Your task to perform on an android device: turn on location history Image 0: 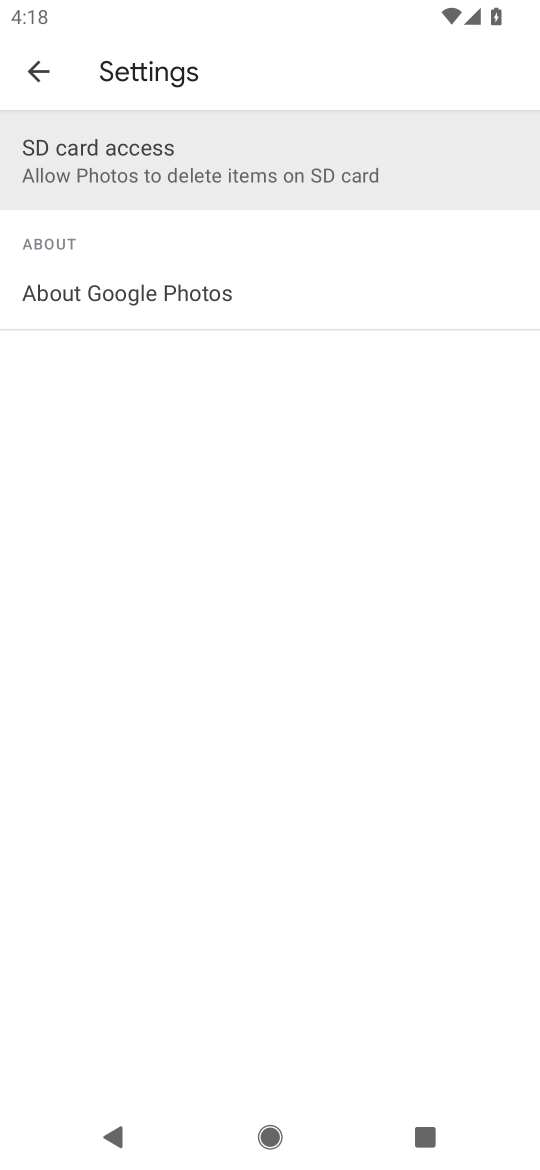
Step 0: press home button
Your task to perform on an android device: turn on location history Image 1: 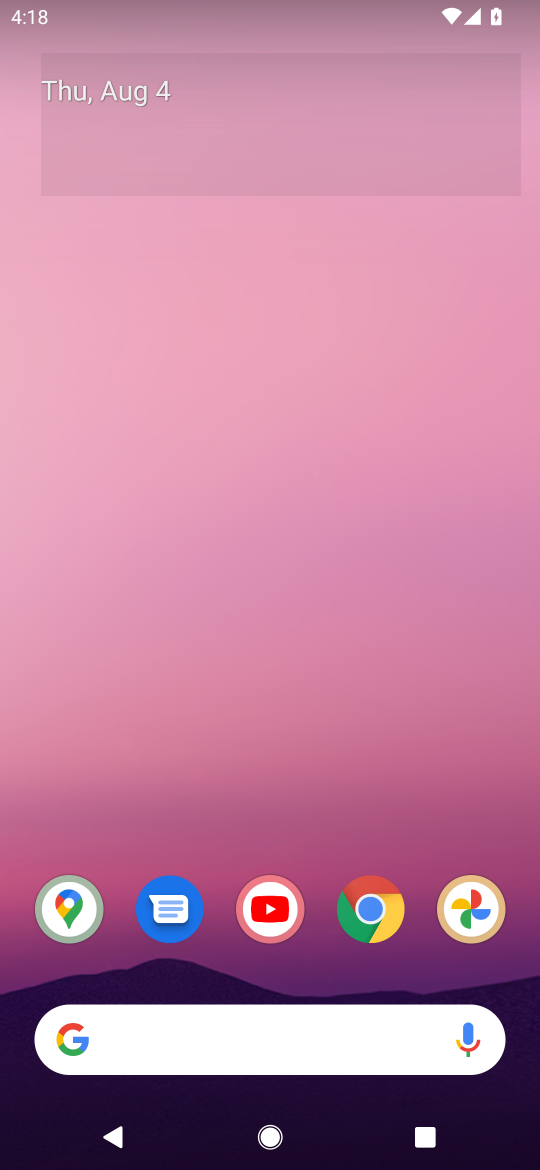
Step 1: drag from (348, 514) to (412, 23)
Your task to perform on an android device: turn on location history Image 2: 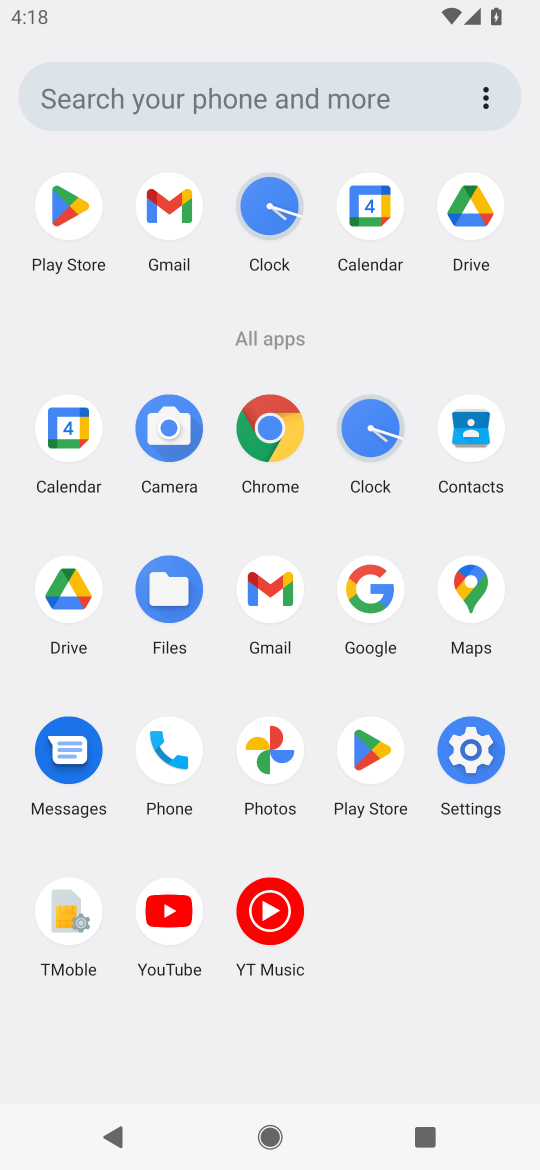
Step 2: click (463, 763)
Your task to perform on an android device: turn on location history Image 3: 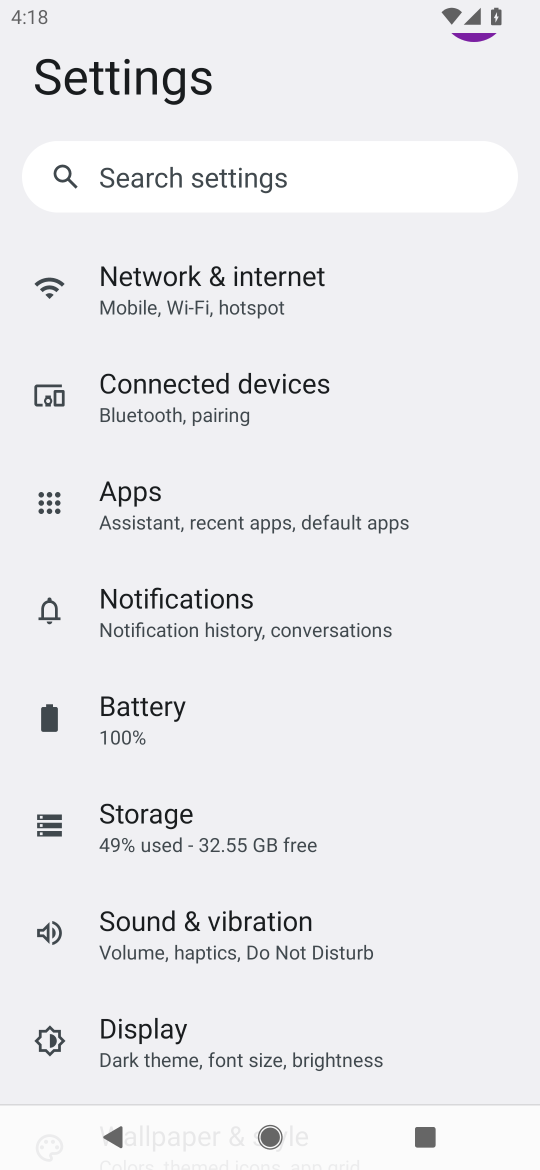
Step 3: drag from (232, 993) to (207, 313)
Your task to perform on an android device: turn on location history Image 4: 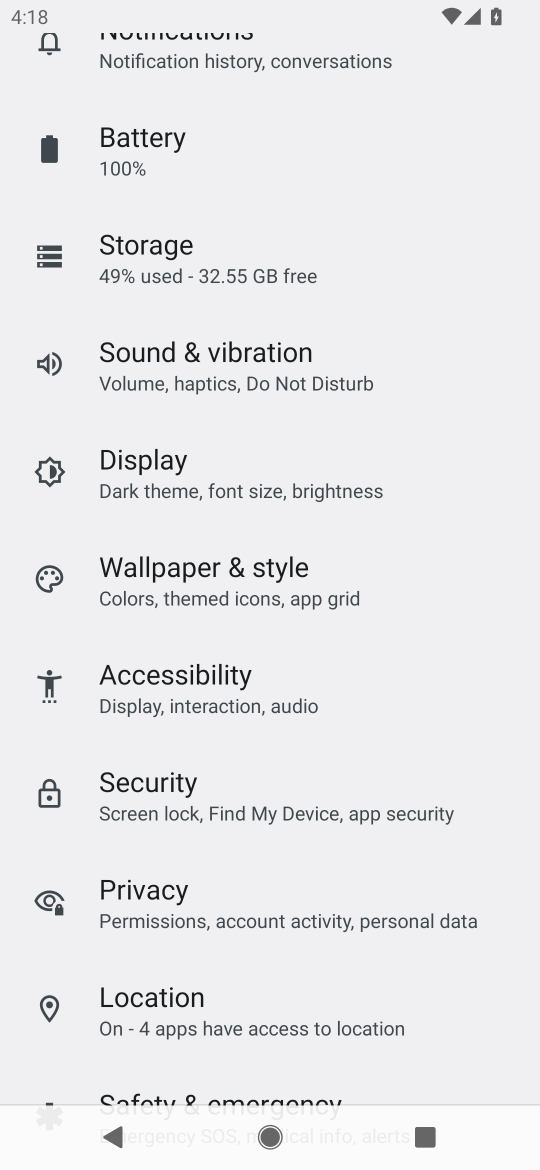
Step 4: click (251, 1024)
Your task to perform on an android device: turn on location history Image 5: 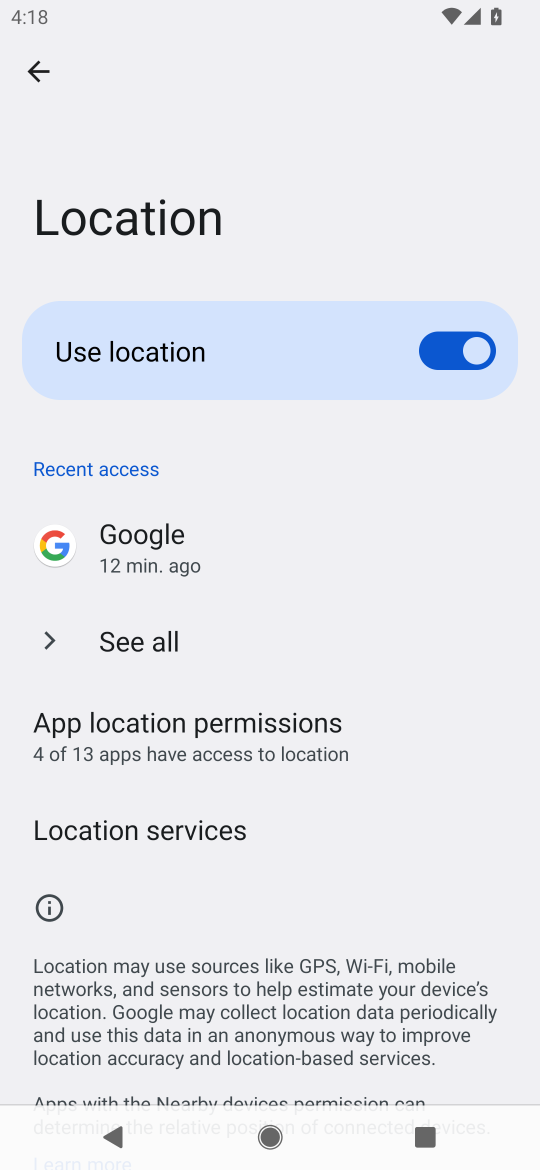
Step 5: drag from (405, 1012) to (374, 285)
Your task to perform on an android device: turn on location history Image 6: 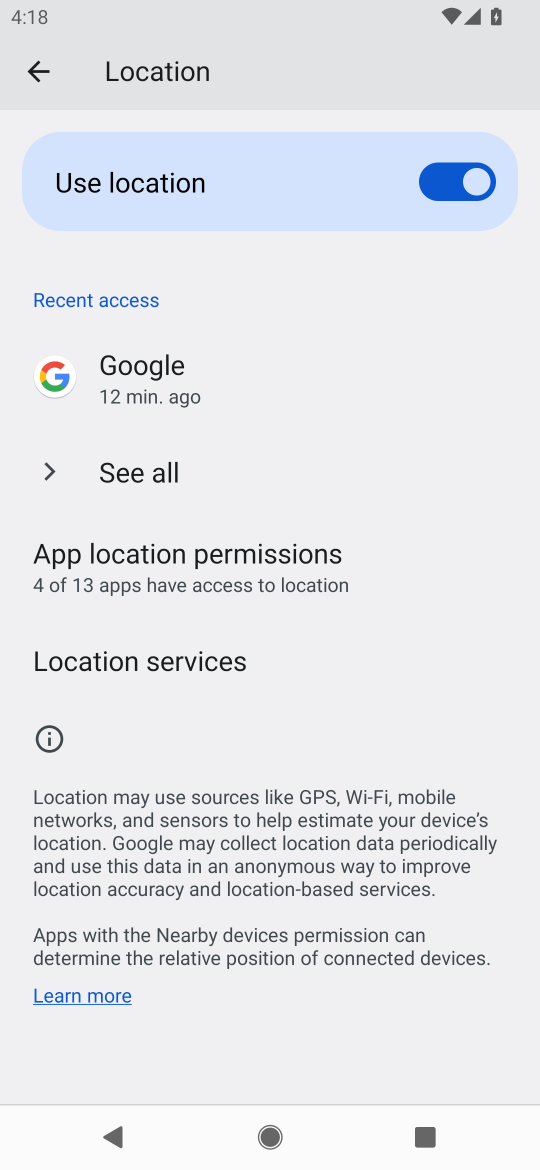
Step 6: click (122, 657)
Your task to perform on an android device: turn on location history Image 7: 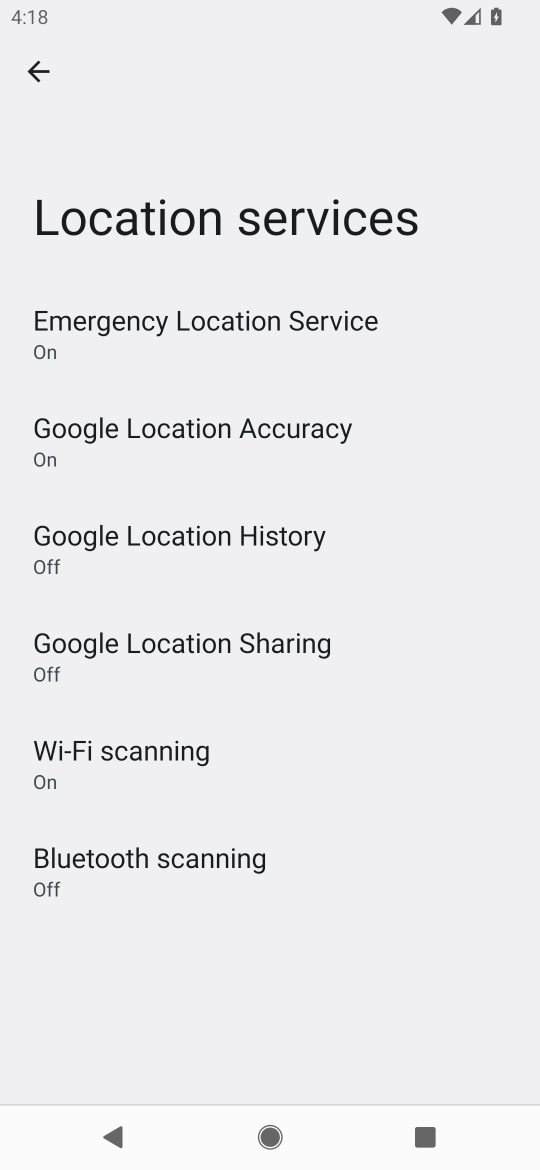
Step 7: click (205, 546)
Your task to perform on an android device: turn on location history Image 8: 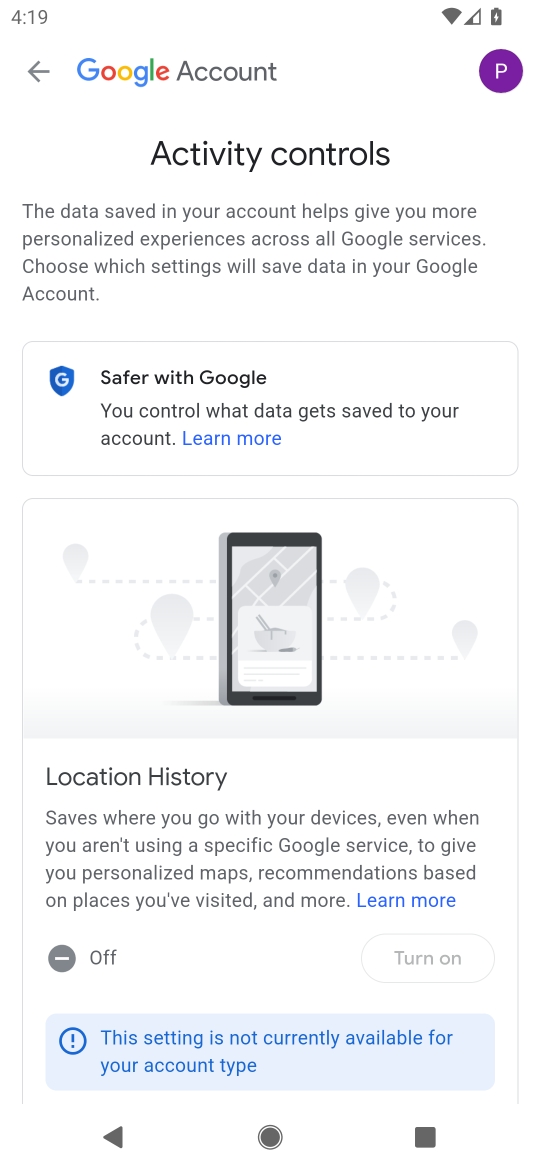
Step 8: click (443, 955)
Your task to perform on an android device: turn on location history Image 9: 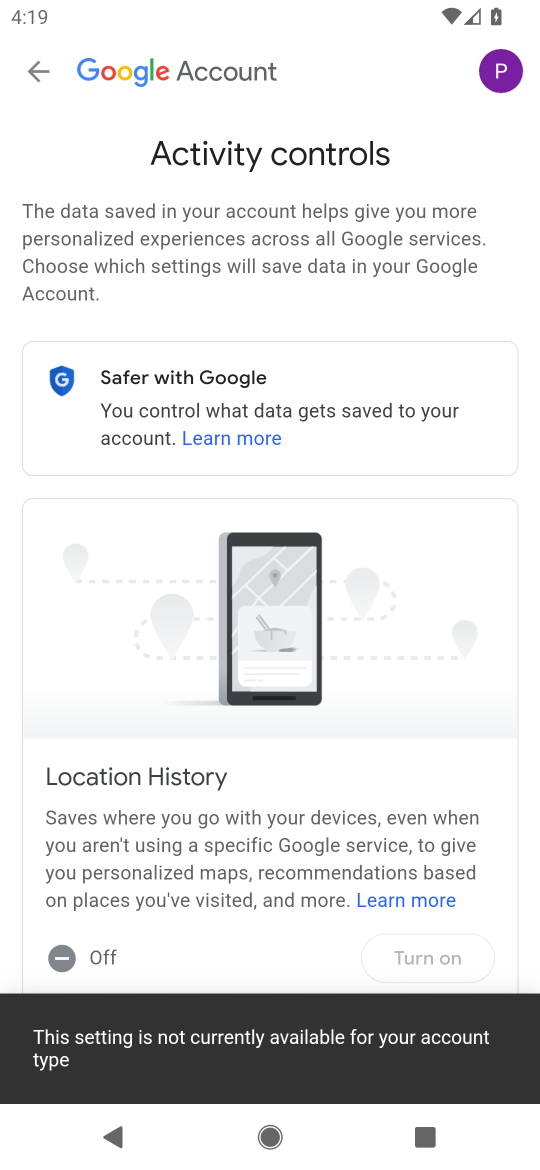
Step 9: task complete